Your task to perform on an android device: open device folders in google photos Image 0: 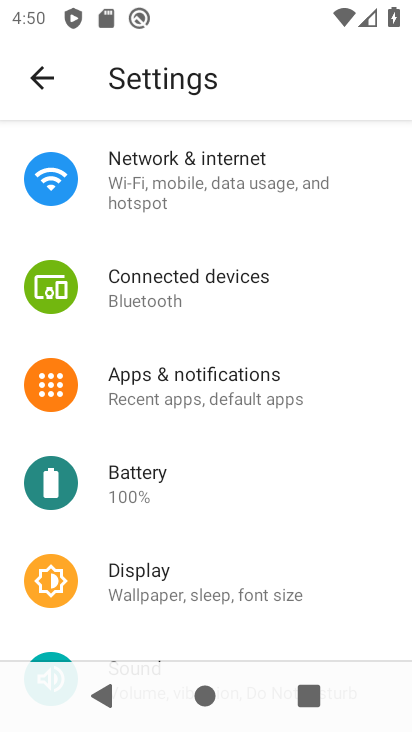
Step 0: press home button
Your task to perform on an android device: open device folders in google photos Image 1: 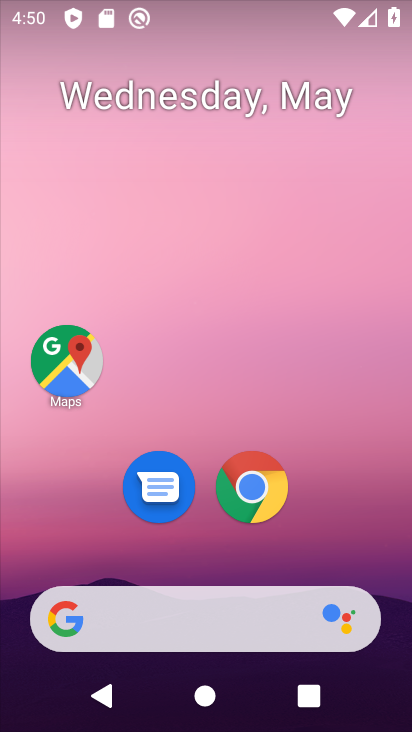
Step 1: drag from (351, 566) to (264, 10)
Your task to perform on an android device: open device folders in google photos Image 2: 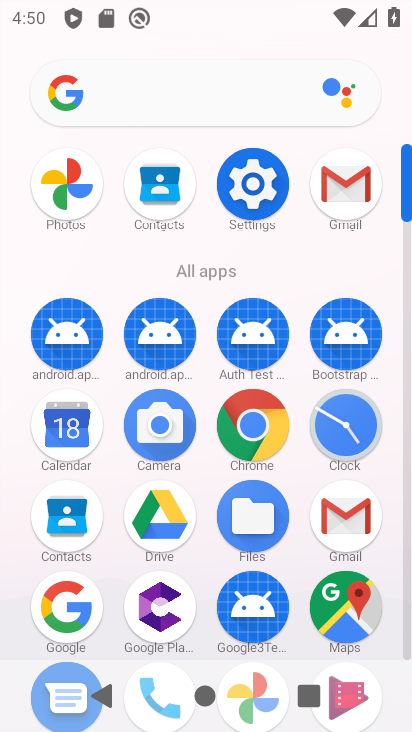
Step 2: click (63, 228)
Your task to perform on an android device: open device folders in google photos Image 3: 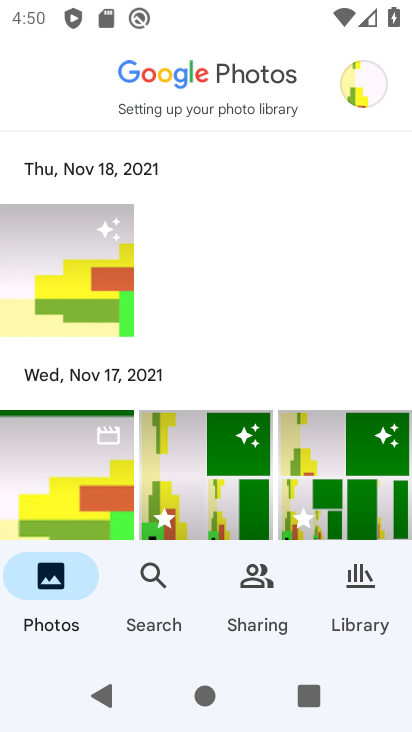
Step 3: click (368, 99)
Your task to perform on an android device: open device folders in google photos Image 4: 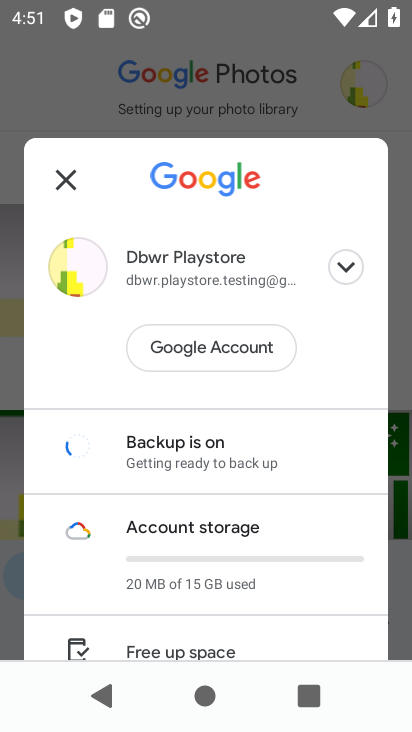
Step 4: click (73, 197)
Your task to perform on an android device: open device folders in google photos Image 5: 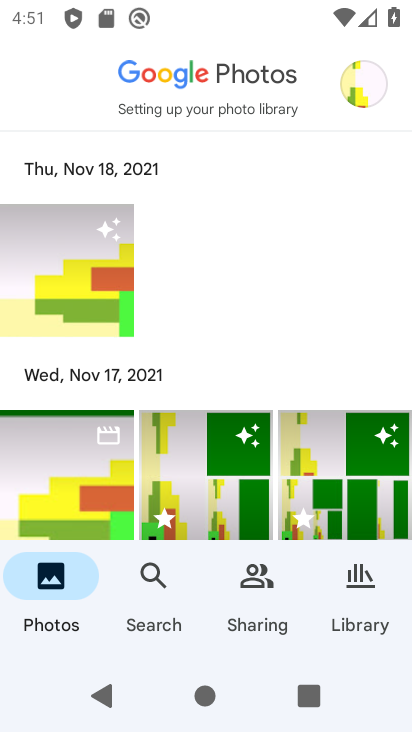
Step 5: click (365, 641)
Your task to perform on an android device: open device folders in google photos Image 6: 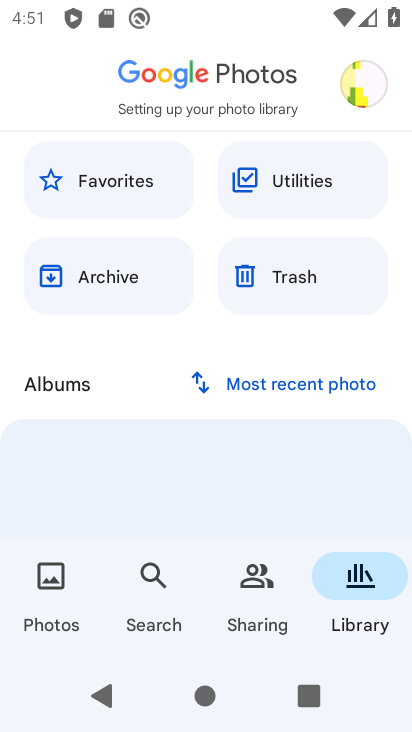
Step 6: task complete